Your task to perform on an android device: Clear the cart on target.com. Add "corsair k70" to the cart on target.com Image 0: 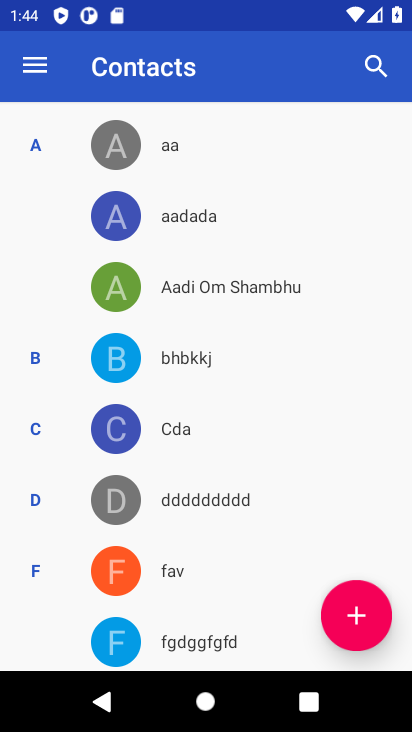
Step 0: press home button
Your task to perform on an android device: Clear the cart on target.com. Add "corsair k70" to the cart on target.com Image 1: 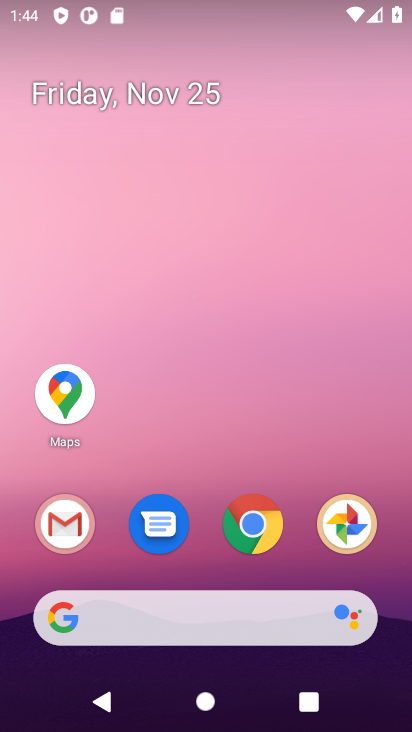
Step 1: click (249, 534)
Your task to perform on an android device: Clear the cart on target.com. Add "corsair k70" to the cart on target.com Image 2: 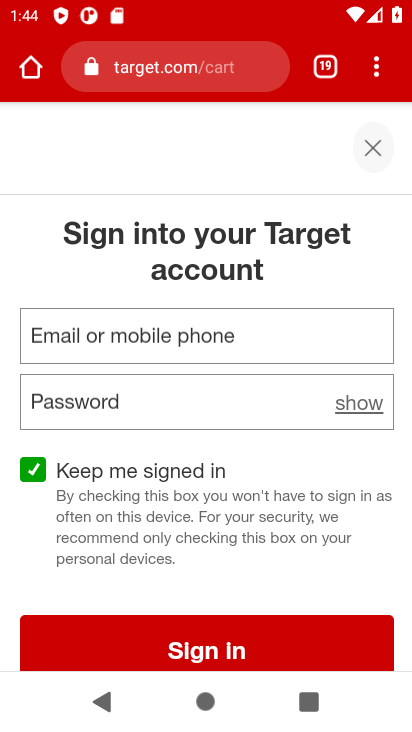
Step 2: click (147, 71)
Your task to perform on an android device: Clear the cart on target.com. Add "corsair k70" to the cart on target.com Image 3: 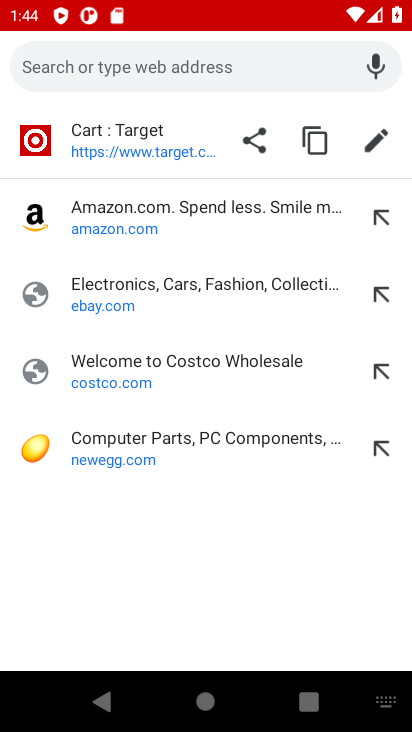
Step 3: type "target.com"
Your task to perform on an android device: Clear the cart on target.com. Add "corsair k70" to the cart on target.com Image 4: 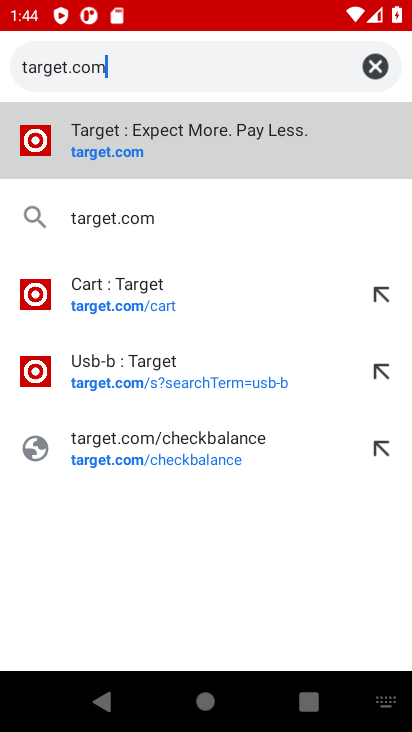
Step 4: click (98, 159)
Your task to perform on an android device: Clear the cart on target.com. Add "corsair k70" to the cart on target.com Image 5: 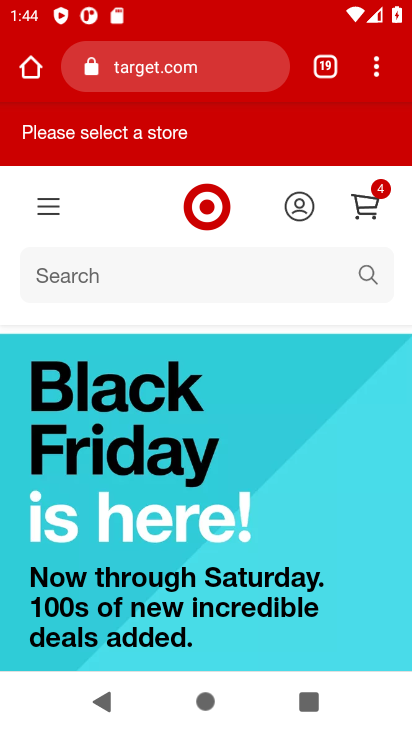
Step 5: click (371, 204)
Your task to perform on an android device: Clear the cart on target.com. Add "corsair k70" to the cart on target.com Image 6: 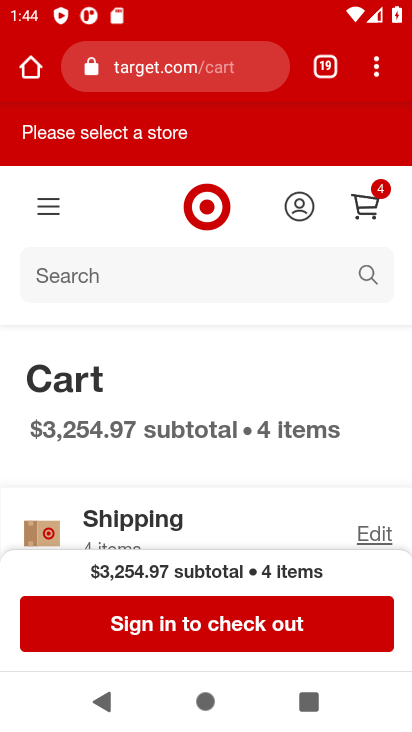
Step 6: drag from (168, 473) to (194, 82)
Your task to perform on an android device: Clear the cart on target.com. Add "corsair k70" to the cart on target.com Image 7: 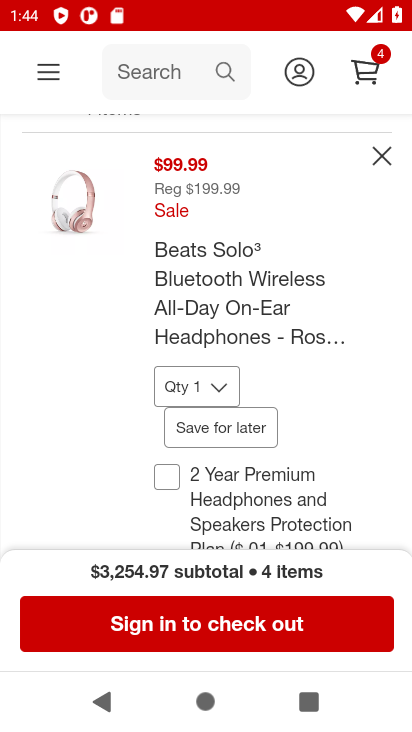
Step 7: click (379, 153)
Your task to perform on an android device: Clear the cart on target.com. Add "corsair k70" to the cart on target.com Image 8: 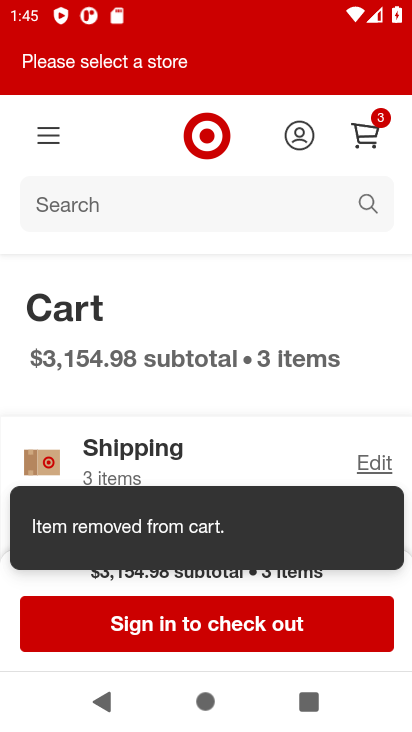
Step 8: drag from (206, 426) to (244, 124)
Your task to perform on an android device: Clear the cart on target.com. Add "corsair k70" to the cart on target.com Image 9: 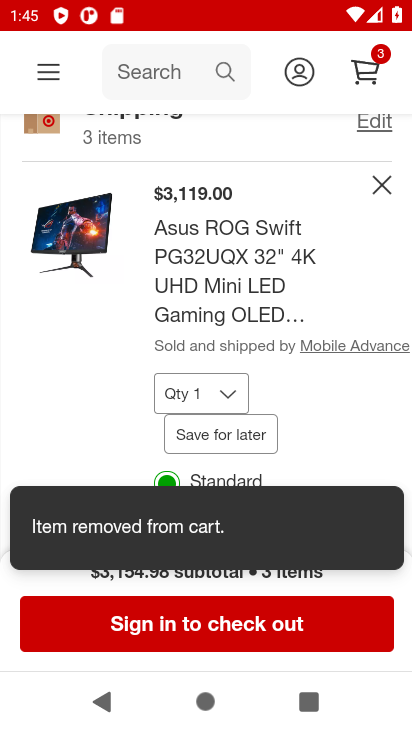
Step 9: click (380, 182)
Your task to perform on an android device: Clear the cart on target.com. Add "corsair k70" to the cart on target.com Image 10: 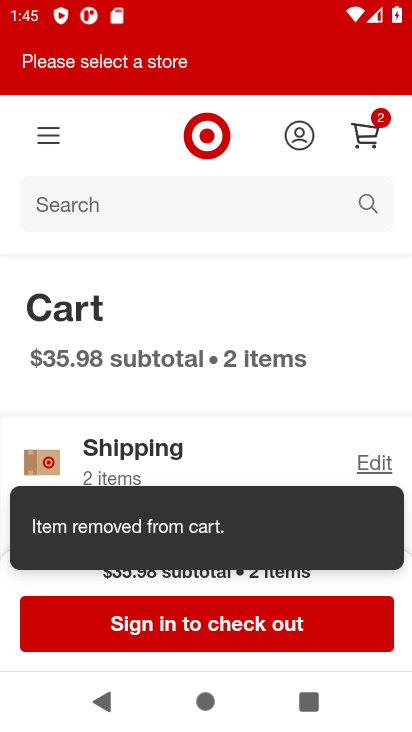
Step 10: drag from (220, 442) to (223, 197)
Your task to perform on an android device: Clear the cart on target.com. Add "corsair k70" to the cart on target.com Image 11: 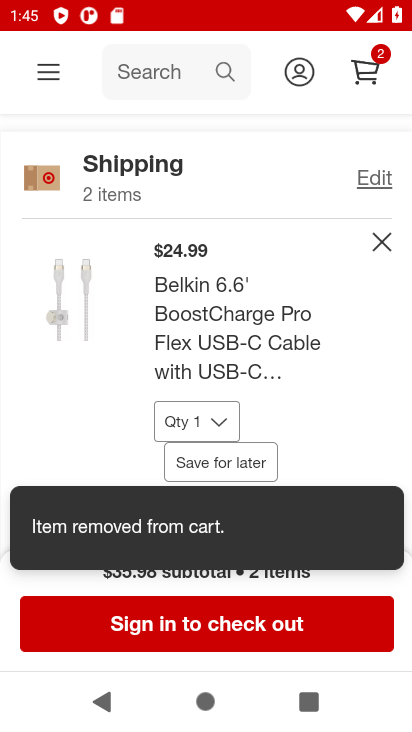
Step 11: click (382, 240)
Your task to perform on an android device: Clear the cart on target.com. Add "corsair k70" to the cart on target.com Image 12: 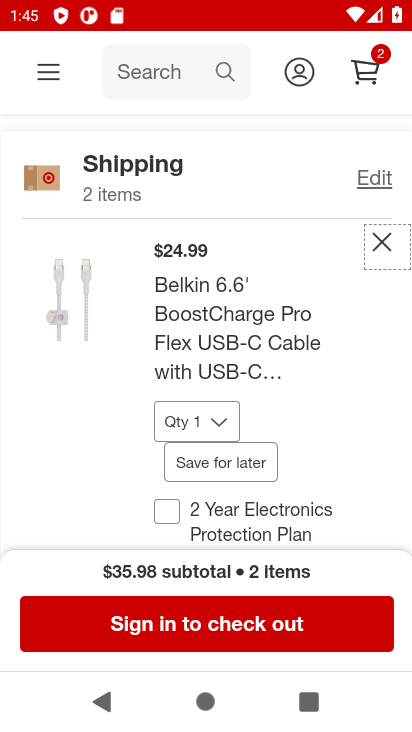
Step 12: click (383, 243)
Your task to perform on an android device: Clear the cart on target.com. Add "corsair k70" to the cart on target.com Image 13: 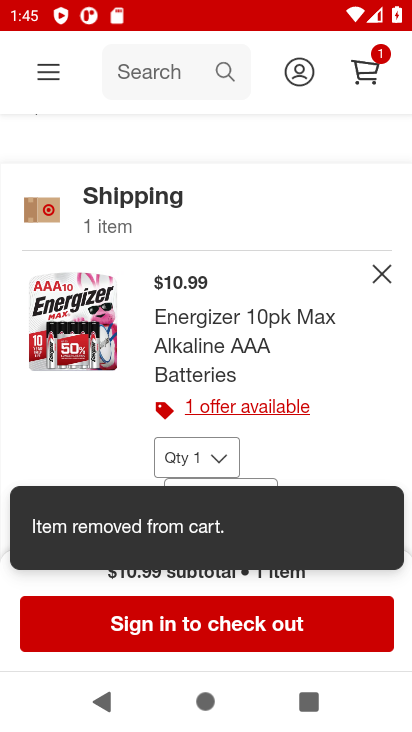
Step 13: click (383, 273)
Your task to perform on an android device: Clear the cart on target.com. Add "corsair k70" to the cart on target.com Image 14: 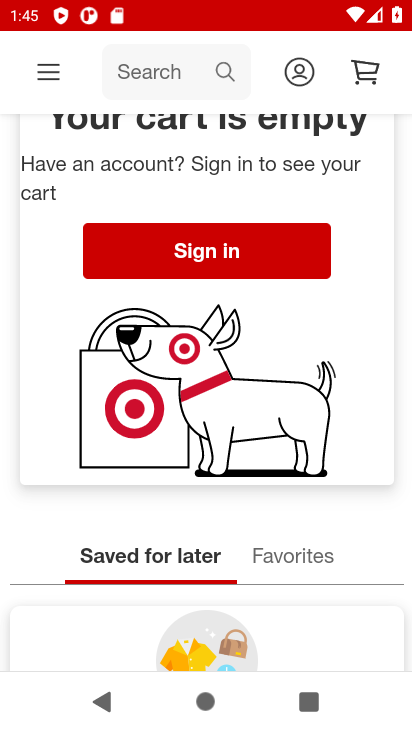
Step 14: drag from (247, 210) to (202, 536)
Your task to perform on an android device: Clear the cart on target.com. Add "corsair k70" to the cart on target.com Image 15: 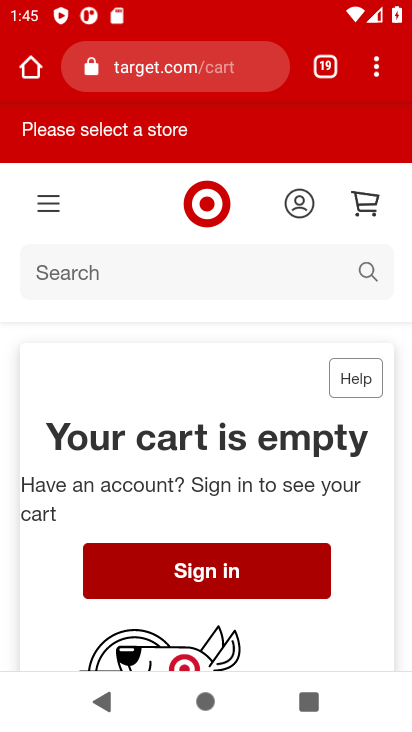
Step 15: click (356, 276)
Your task to perform on an android device: Clear the cart on target.com. Add "corsair k70" to the cart on target.com Image 16: 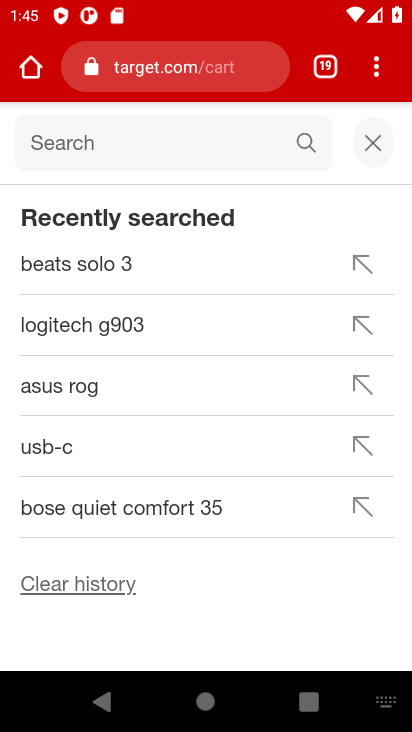
Step 16: type "corsair k70"
Your task to perform on an android device: Clear the cart on target.com. Add "corsair k70" to the cart on target.com Image 17: 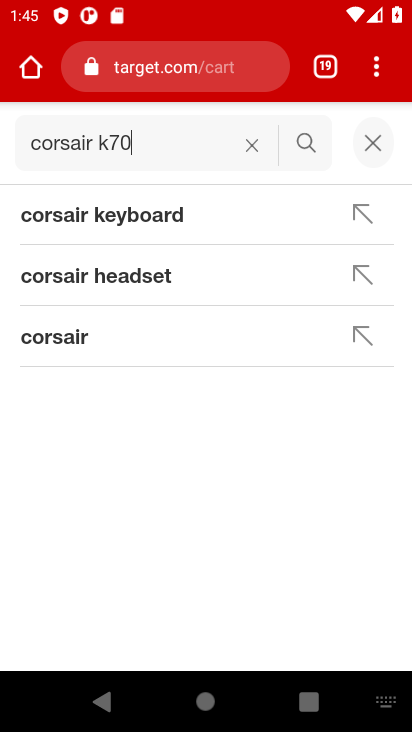
Step 17: click (303, 143)
Your task to perform on an android device: Clear the cart on target.com. Add "corsair k70" to the cart on target.com Image 18: 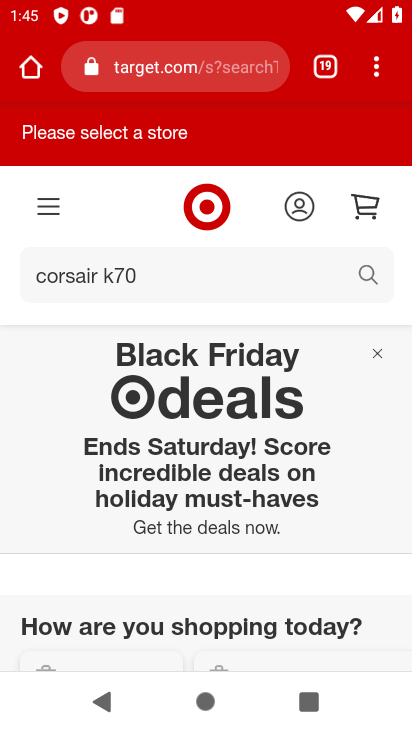
Step 18: task complete